Your task to perform on an android device: Go to battery settings Image 0: 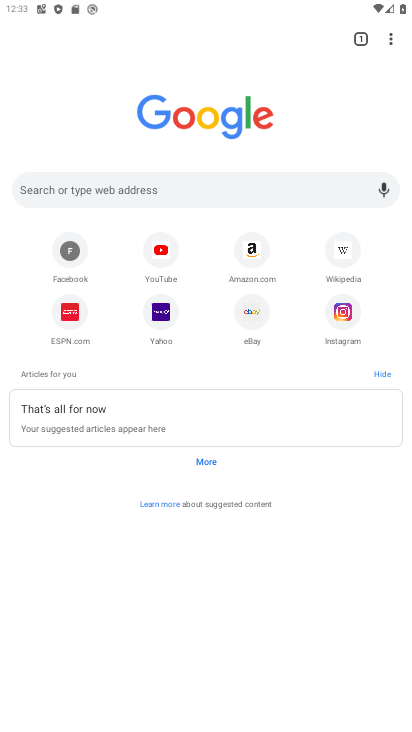
Step 0: press home button
Your task to perform on an android device: Go to battery settings Image 1: 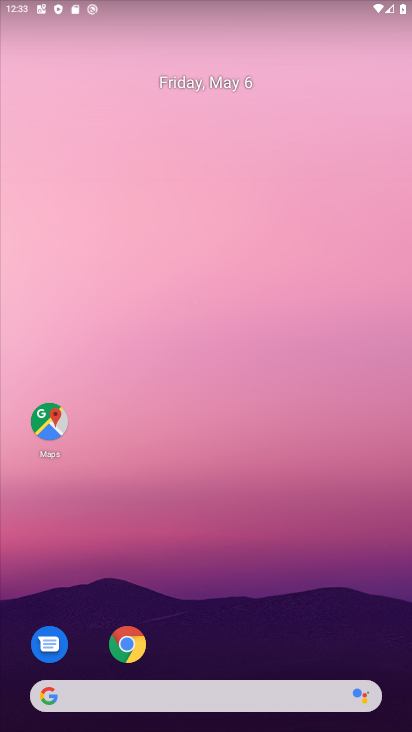
Step 1: drag from (238, 563) to (189, 6)
Your task to perform on an android device: Go to battery settings Image 2: 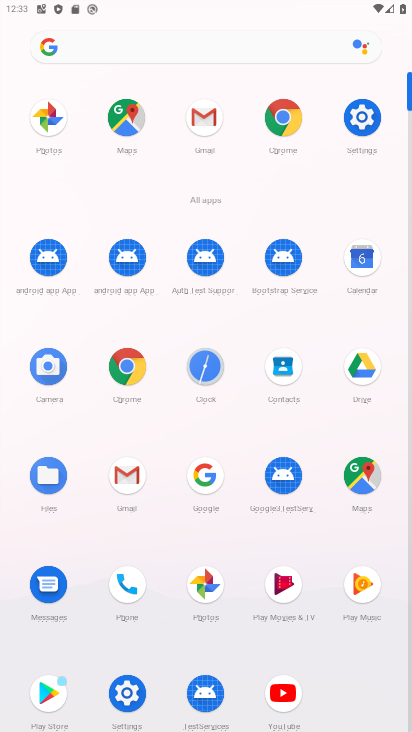
Step 2: click (361, 111)
Your task to perform on an android device: Go to battery settings Image 3: 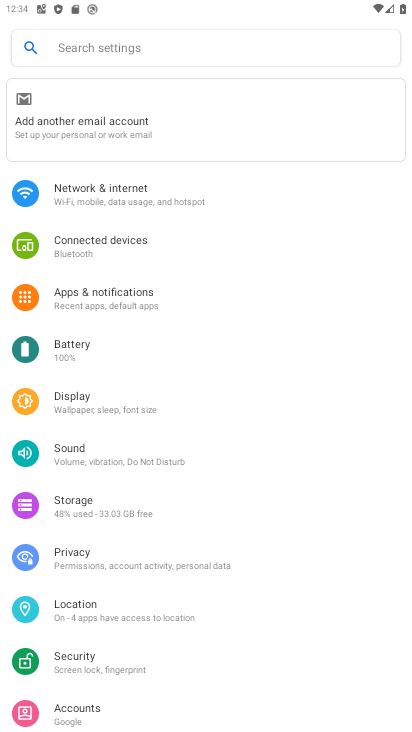
Step 3: click (107, 344)
Your task to perform on an android device: Go to battery settings Image 4: 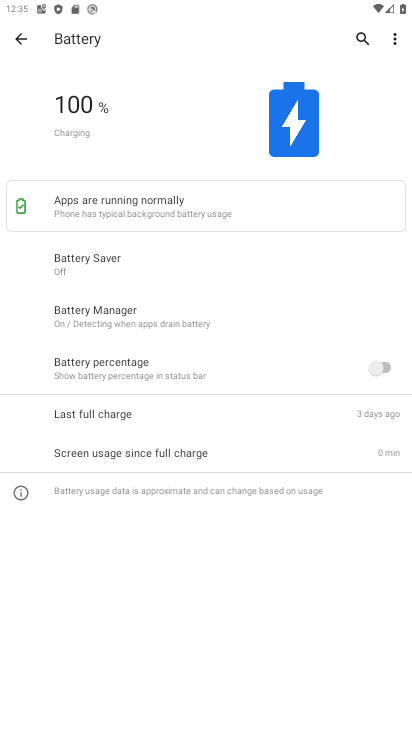
Step 4: task complete